Your task to perform on an android device: Go to location settings Image 0: 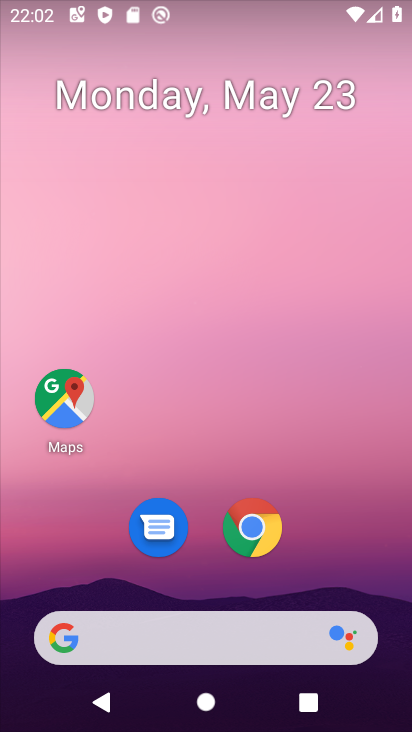
Step 0: drag from (202, 636) to (182, 203)
Your task to perform on an android device: Go to location settings Image 1: 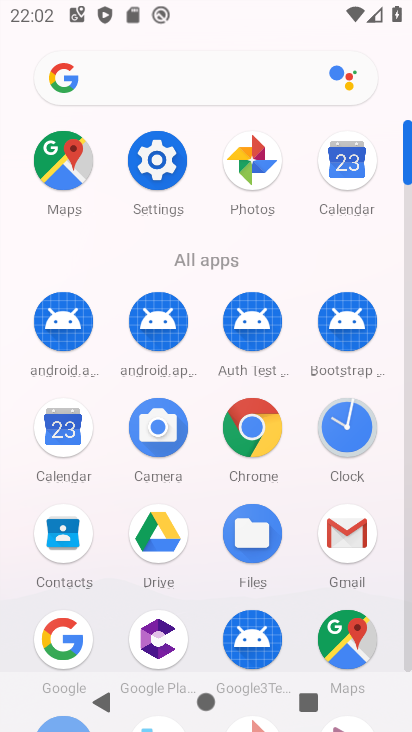
Step 1: click (154, 166)
Your task to perform on an android device: Go to location settings Image 2: 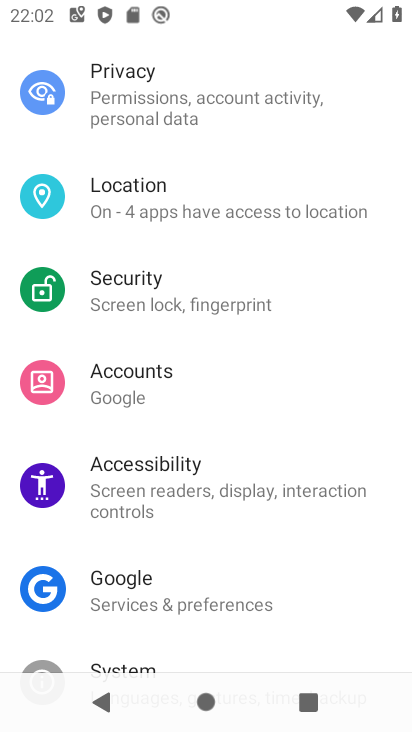
Step 2: click (136, 198)
Your task to perform on an android device: Go to location settings Image 3: 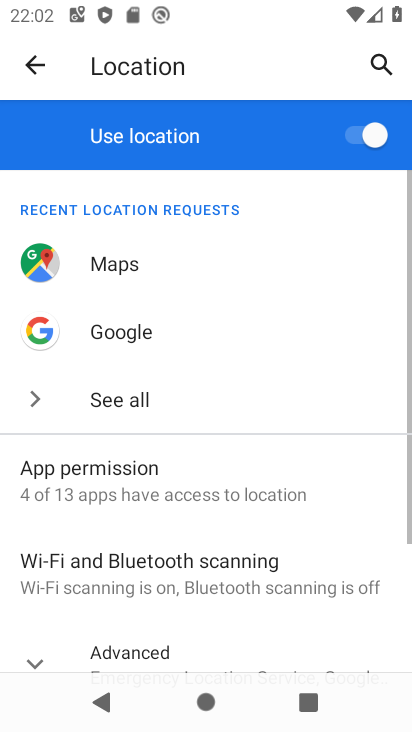
Step 3: task complete